Your task to perform on an android device: Search for bose soundlink on costco, select the first entry, add it to the cart, then select checkout. Image 0: 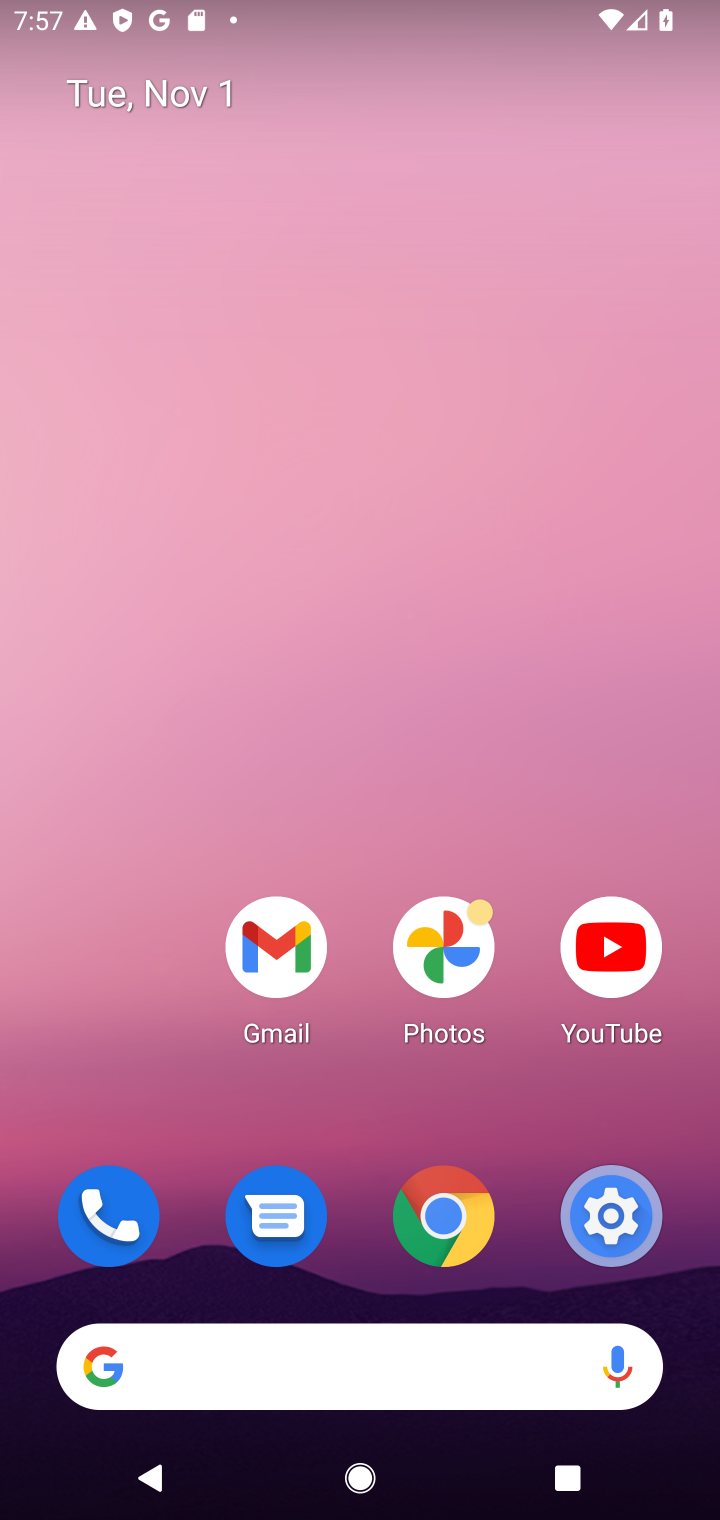
Step 0: click (492, 1236)
Your task to perform on an android device: Search for bose soundlink on costco, select the first entry, add it to the cart, then select checkout. Image 1: 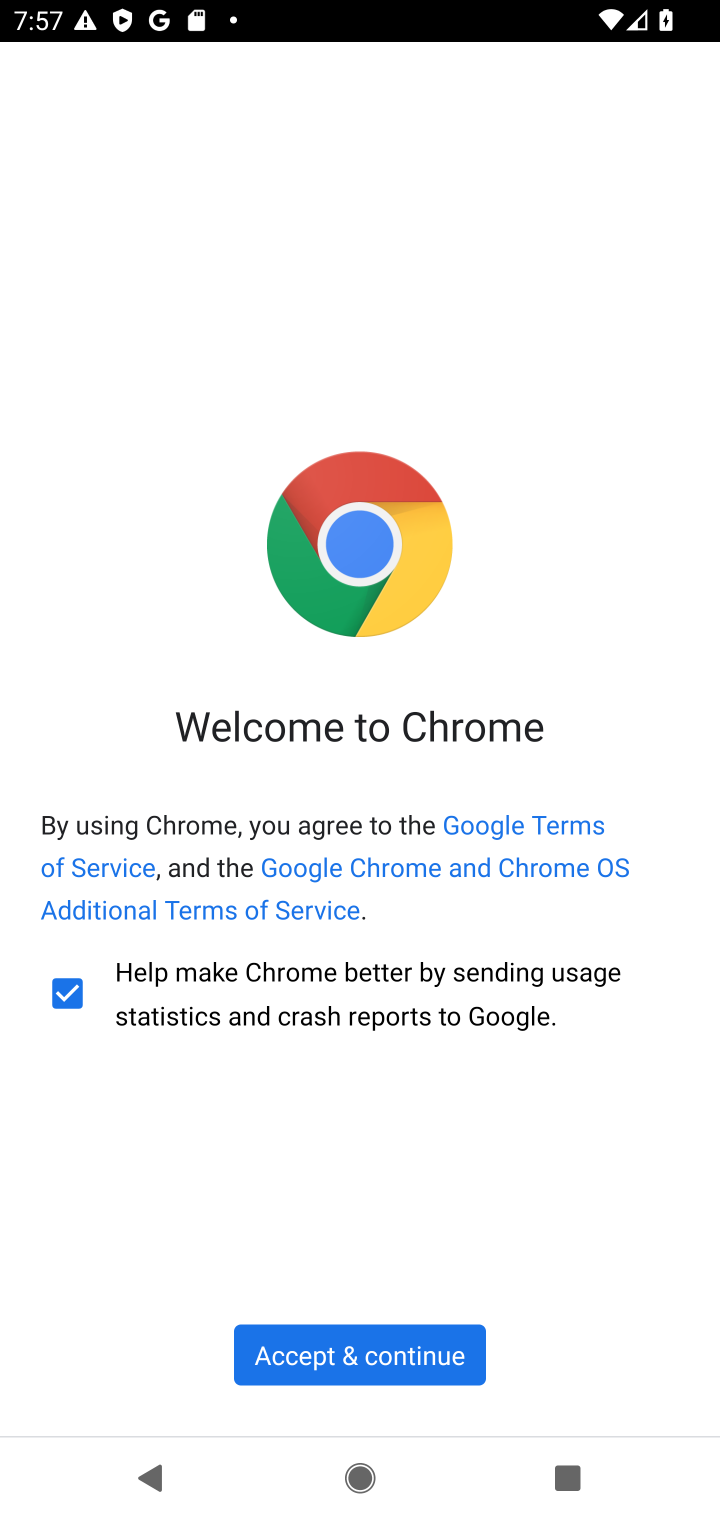
Step 1: click (382, 1347)
Your task to perform on an android device: Search for bose soundlink on costco, select the first entry, add it to the cart, then select checkout. Image 2: 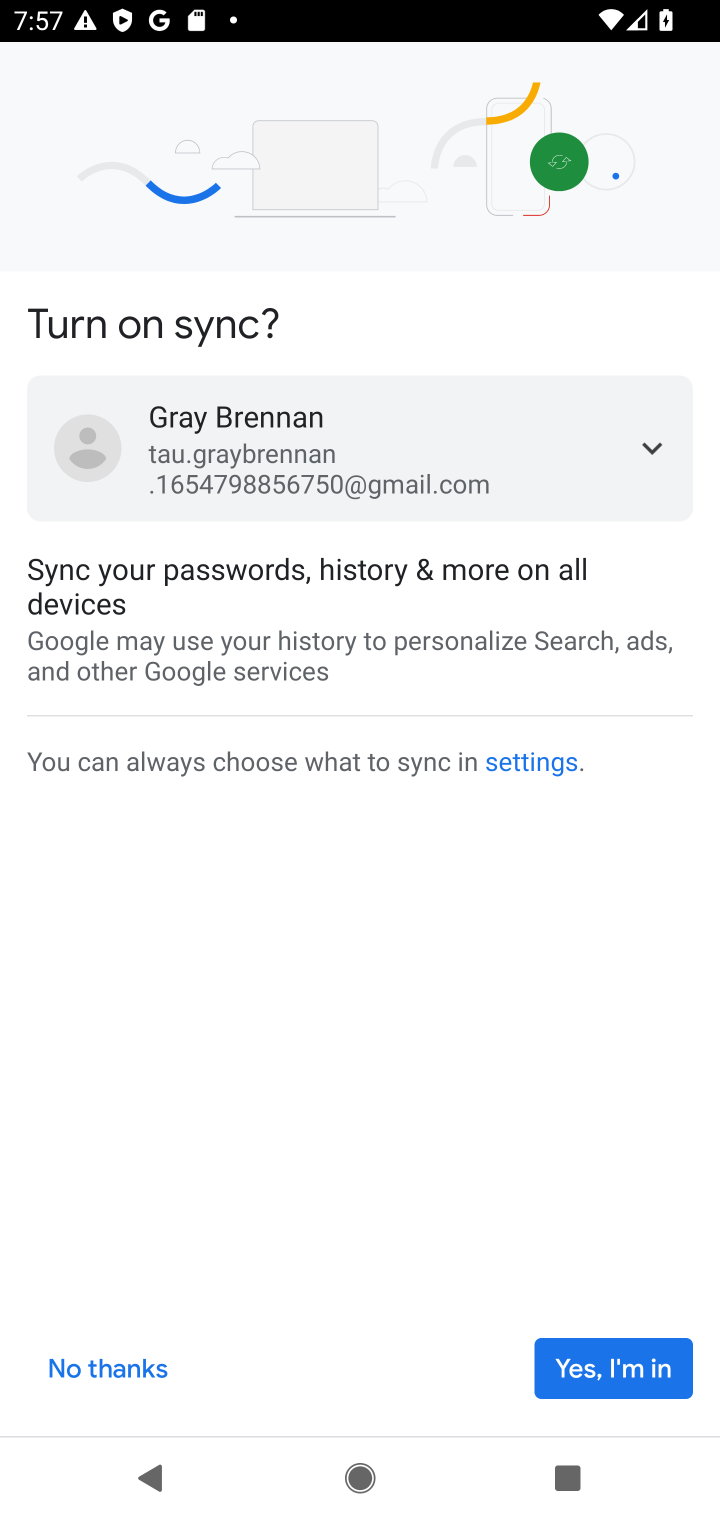
Step 2: click (578, 1375)
Your task to perform on an android device: Search for bose soundlink on costco, select the first entry, add it to the cart, then select checkout. Image 3: 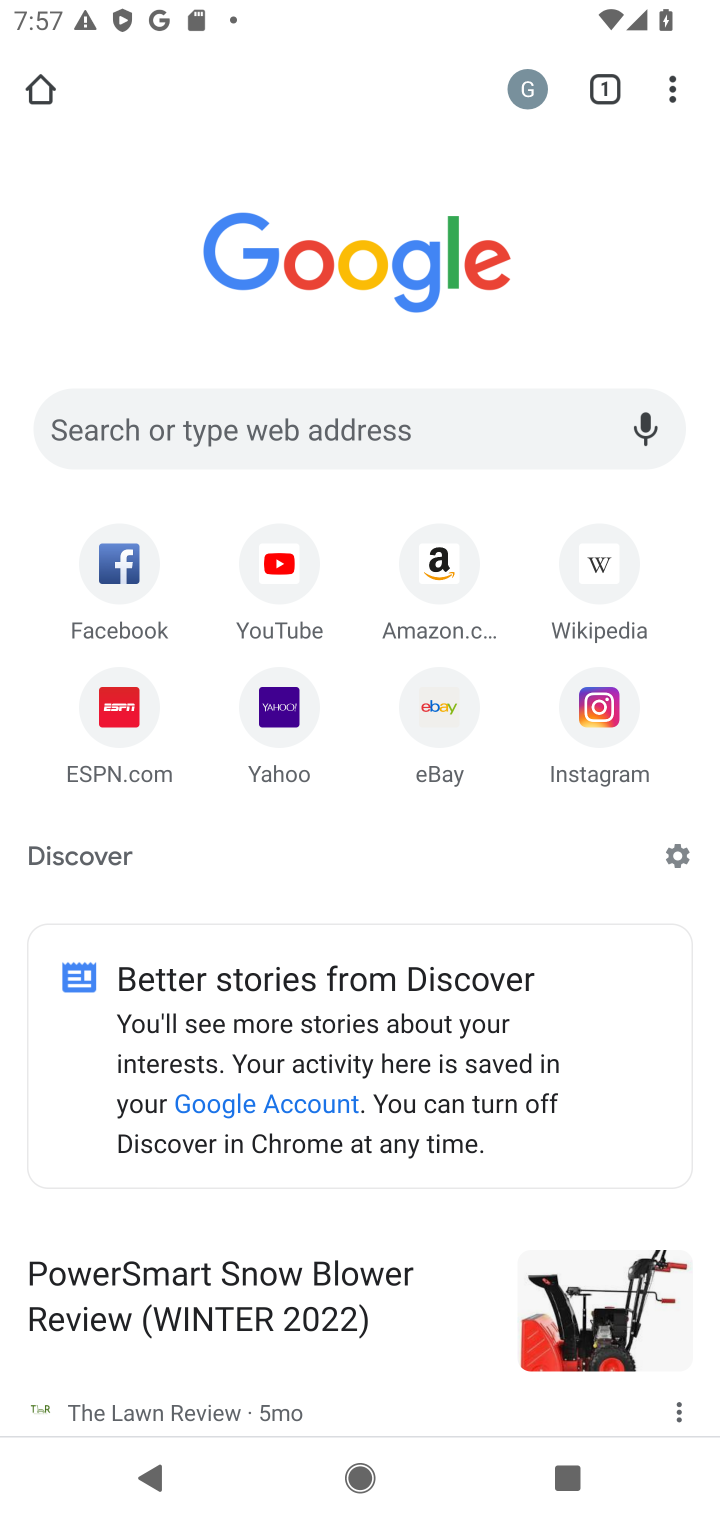
Step 3: click (463, 417)
Your task to perform on an android device: Search for bose soundlink on costco, select the first entry, add it to the cart, then select checkout. Image 4: 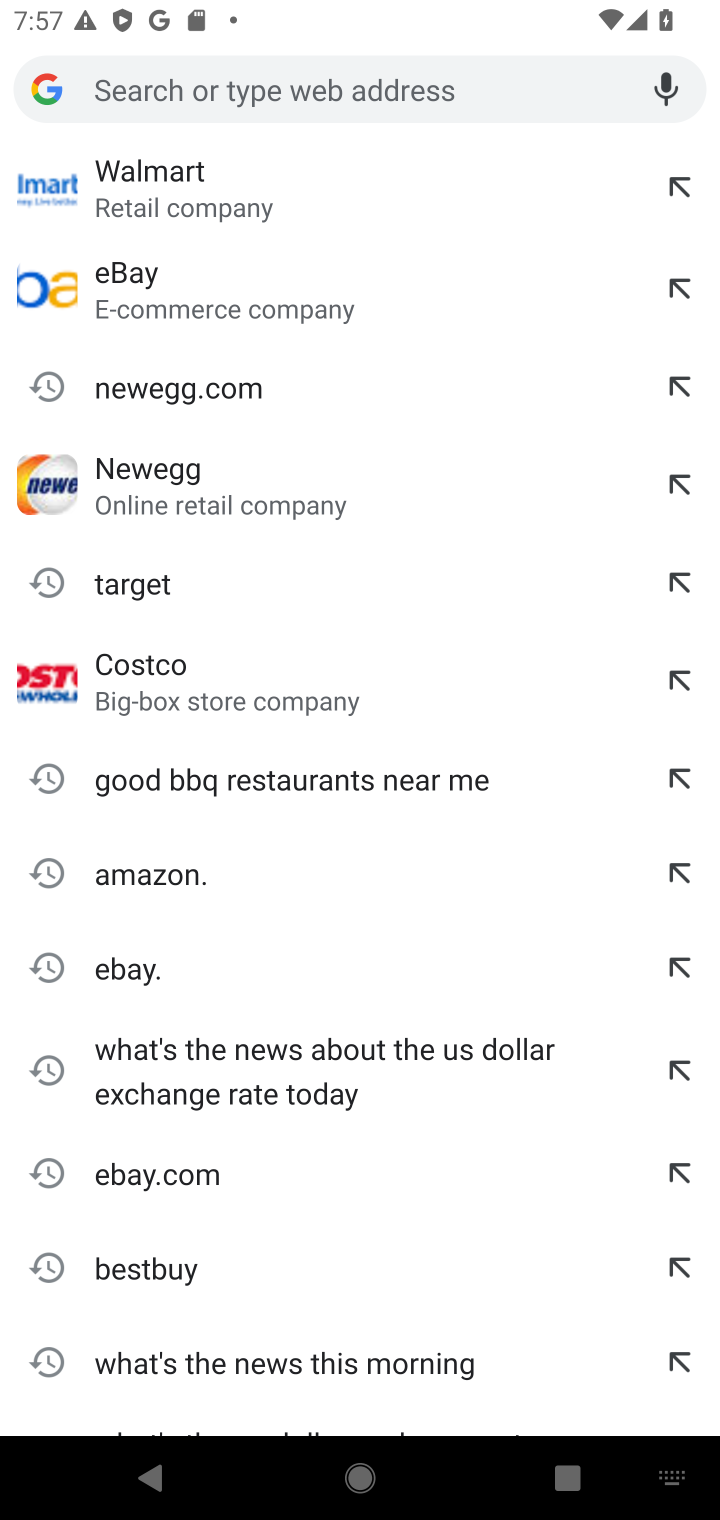
Step 4: type "costco"
Your task to perform on an android device: Search for bose soundlink on costco, select the first entry, add it to the cart, then select checkout. Image 5: 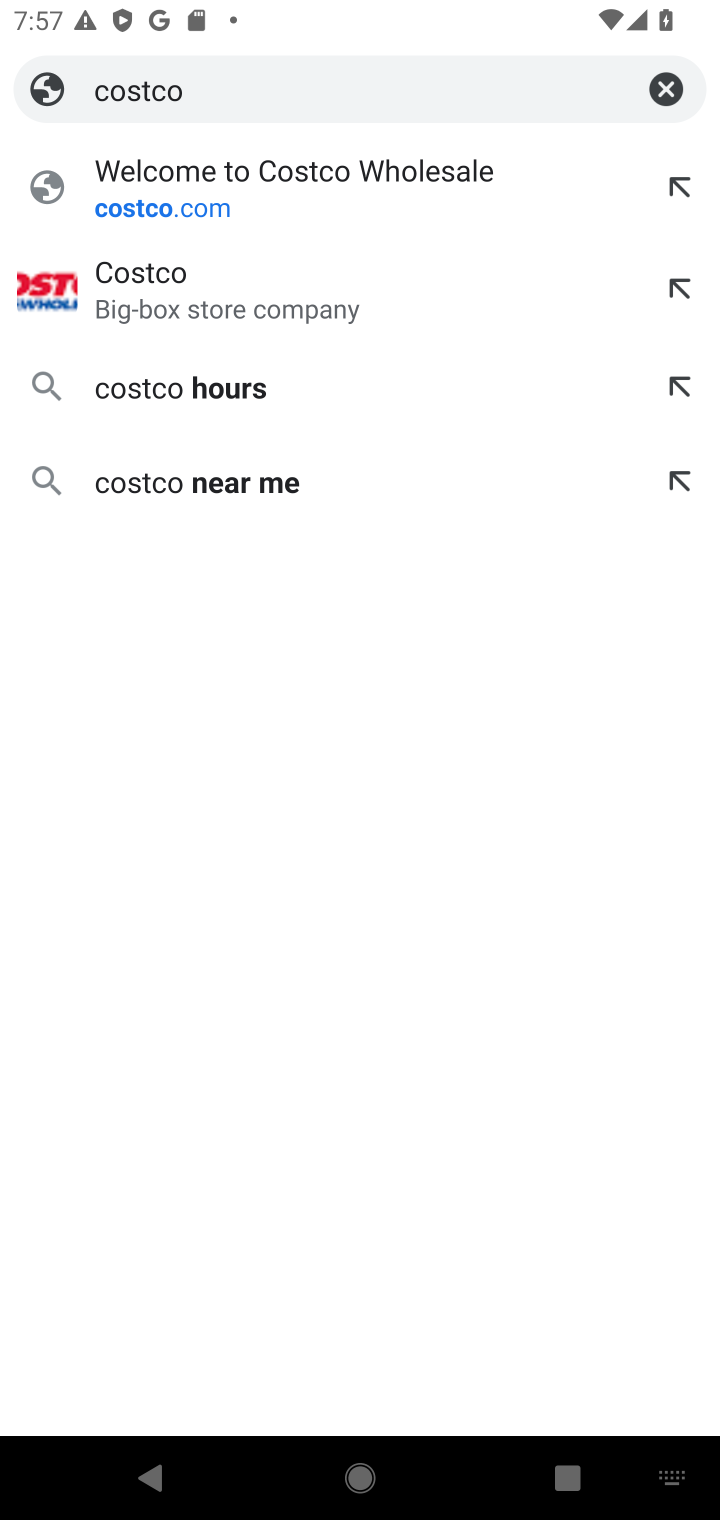
Step 5: click (106, 194)
Your task to perform on an android device: Search for bose soundlink on costco, select the first entry, add it to the cart, then select checkout. Image 6: 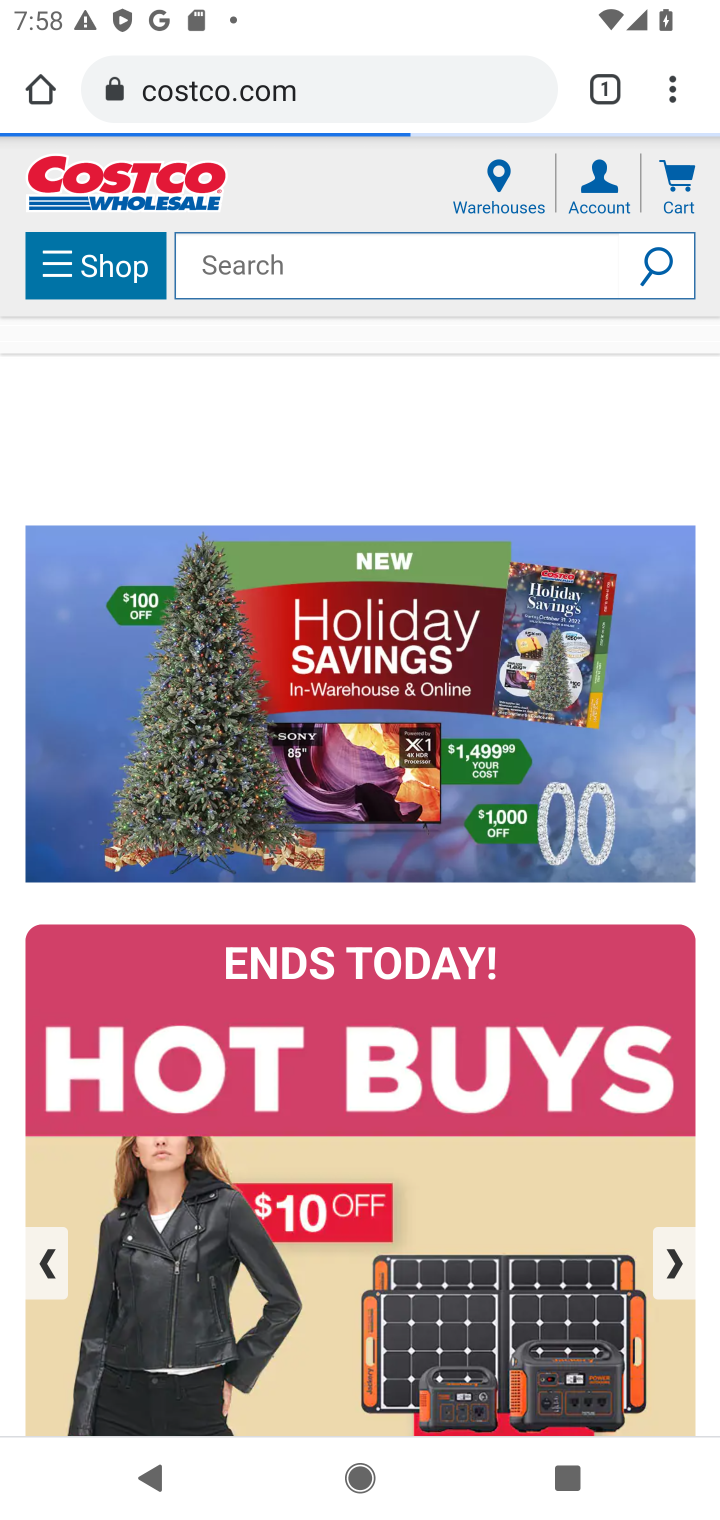
Step 6: click (287, 269)
Your task to perform on an android device: Search for bose soundlink on costco, select the first entry, add it to the cart, then select checkout. Image 7: 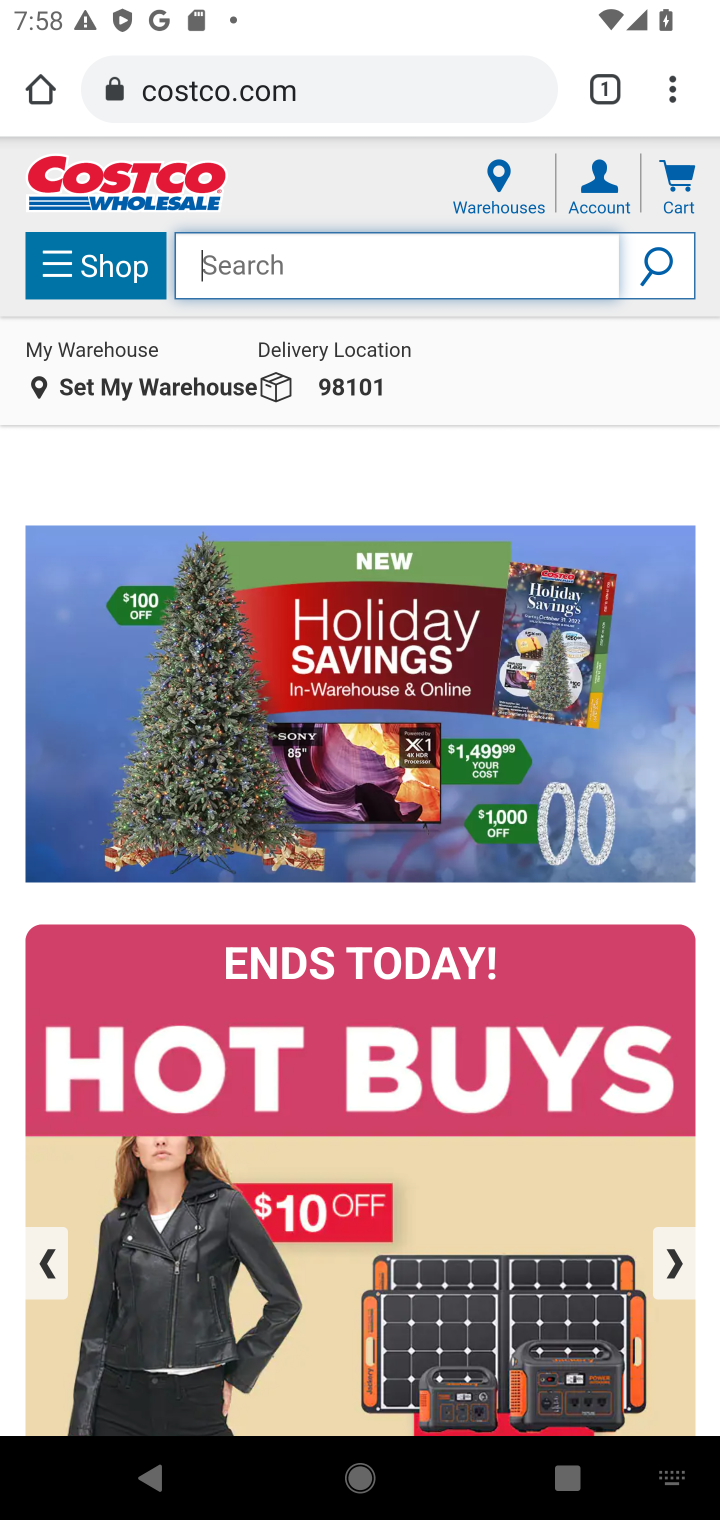
Step 7: type "bose soundlink"
Your task to perform on an android device: Search for bose soundlink on costco, select the first entry, add it to the cart, then select checkout. Image 8: 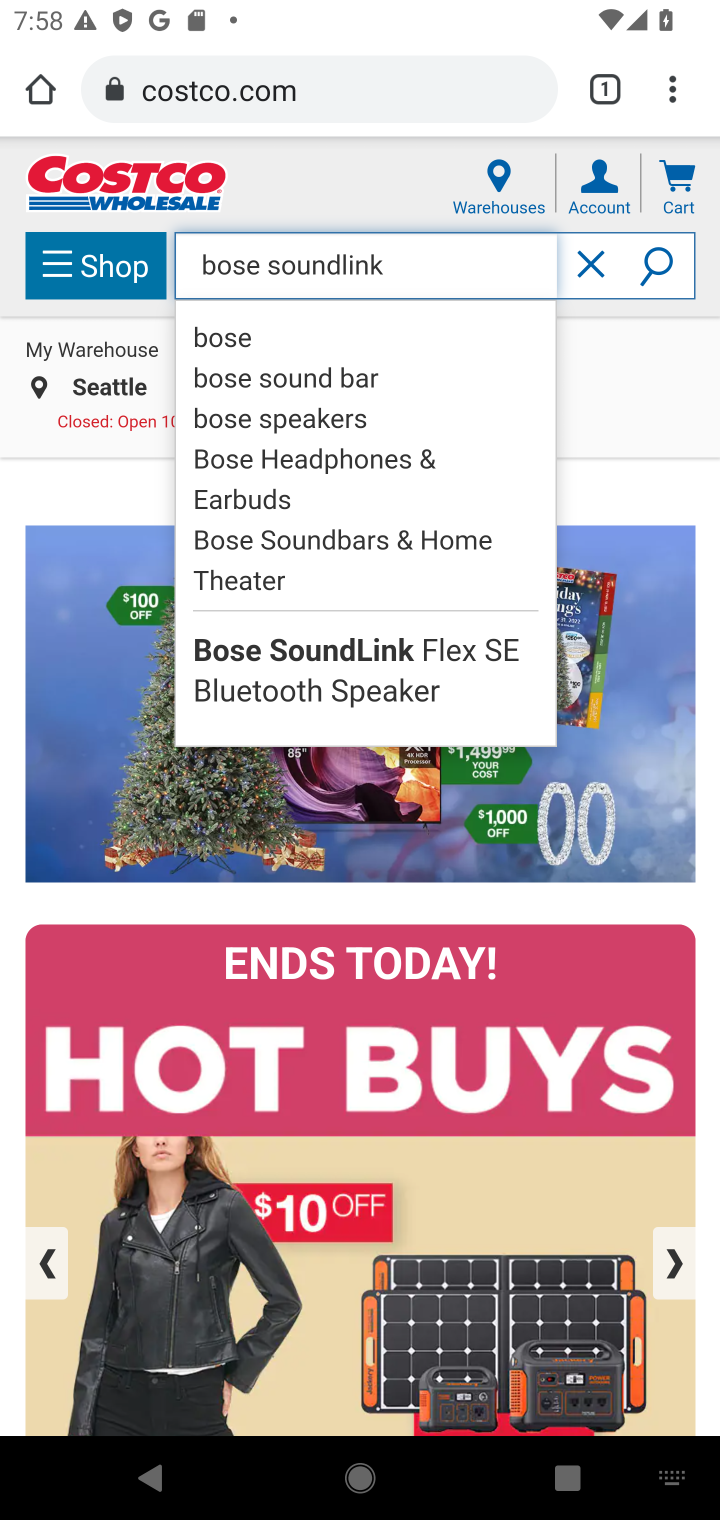
Step 8: click (656, 264)
Your task to perform on an android device: Search for bose soundlink on costco, select the first entry, add it to the cart, then select checkout. Image 9: 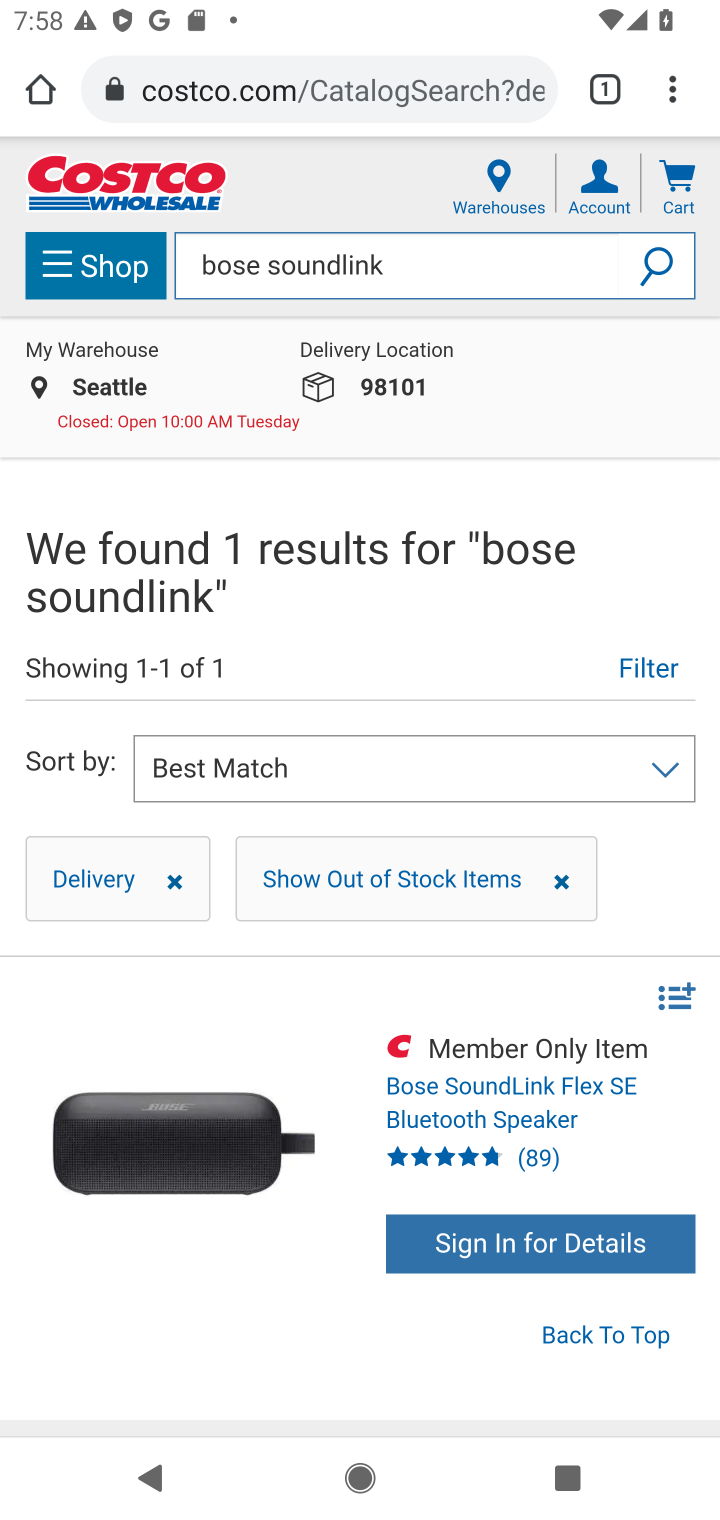
Step 9: click (510, 1103)
Your task to perform on an android device: Search for bose soundlink on costco, select the first entry, add it to the cart, then select checkout. Image 10: 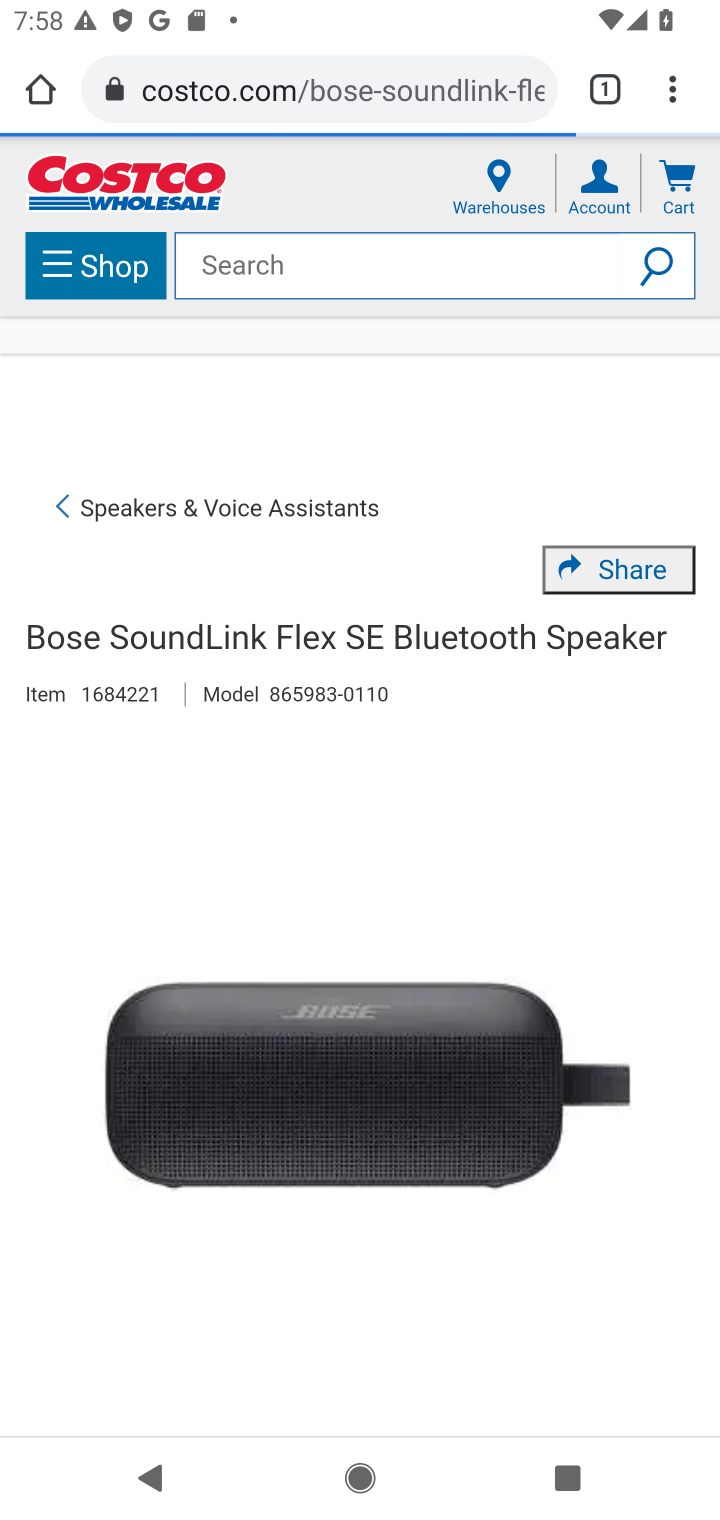
Step 10: drag from (316, 1157) to (325, 563)
Your task to perform on an android device: Search for bose soundlink on costco, select the first entry, add it to the cart, then select checkout. Image 11: 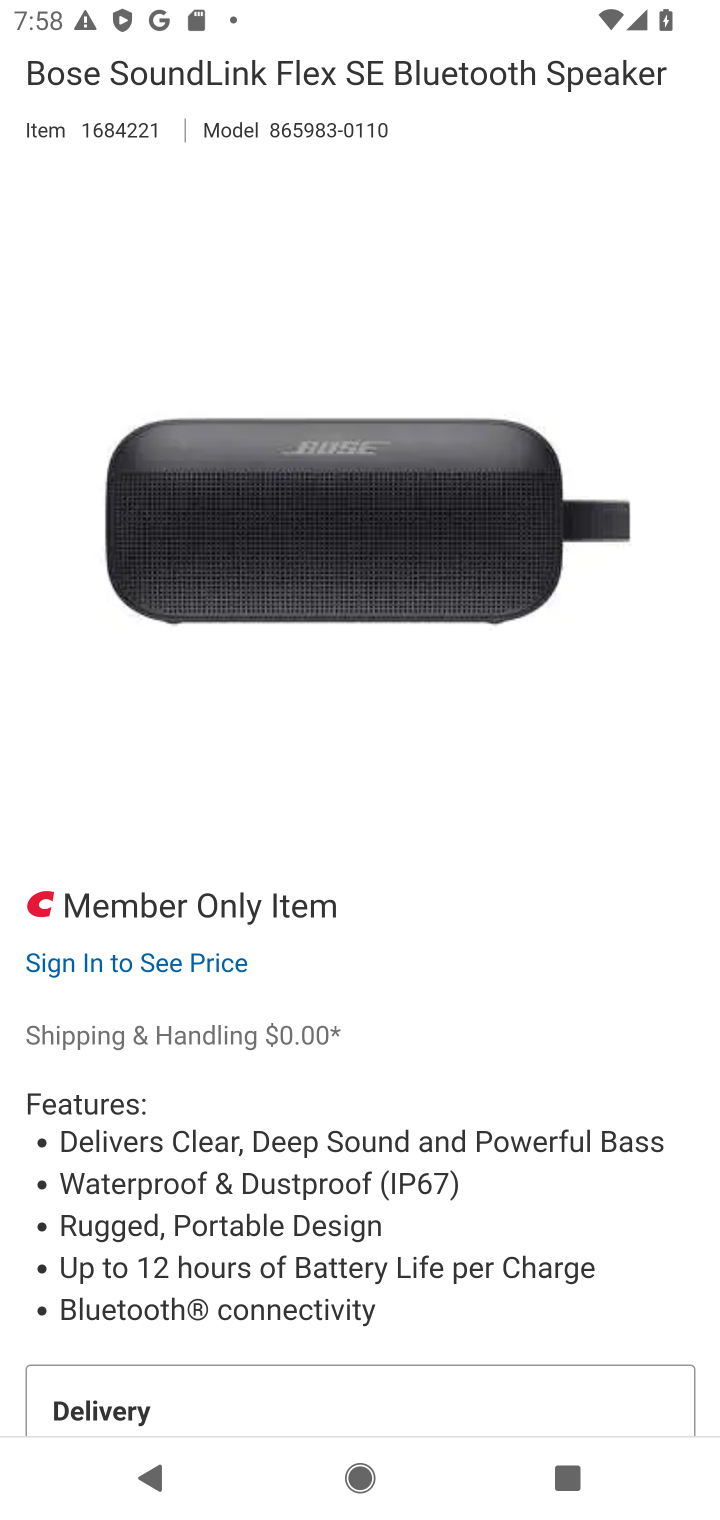
Step 11: drag from (338, 1184) to (366, 587)
Your task to perform on an android device: Search for bose soundlink on costco, select the first entry, add it to the cart, then select checkout. Image 12: 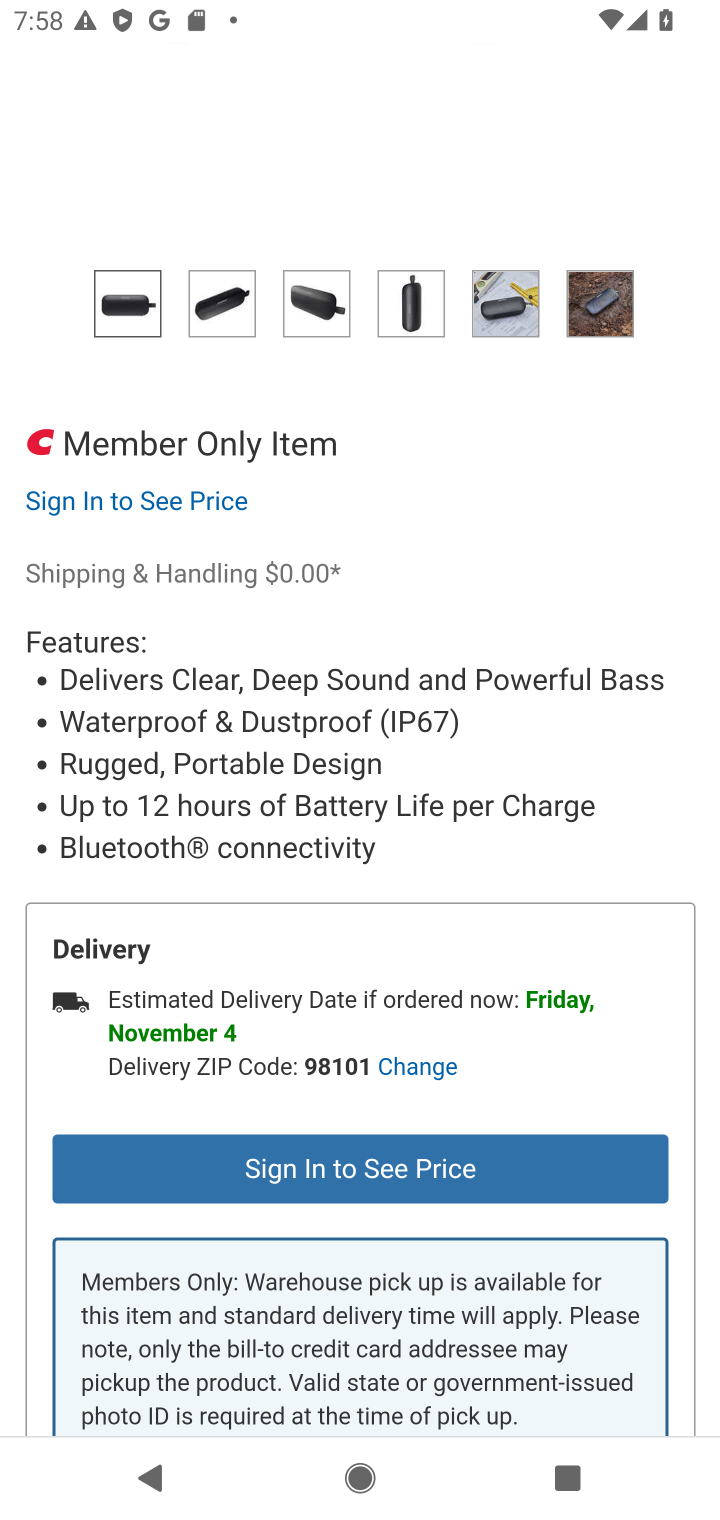
Step 12: drag from (454, 1163) to (450, 476)
Your task to perform on an android device: Search for bose soundlink on costco, select the first entry, add it to the cart, then select checkout. Image 13: 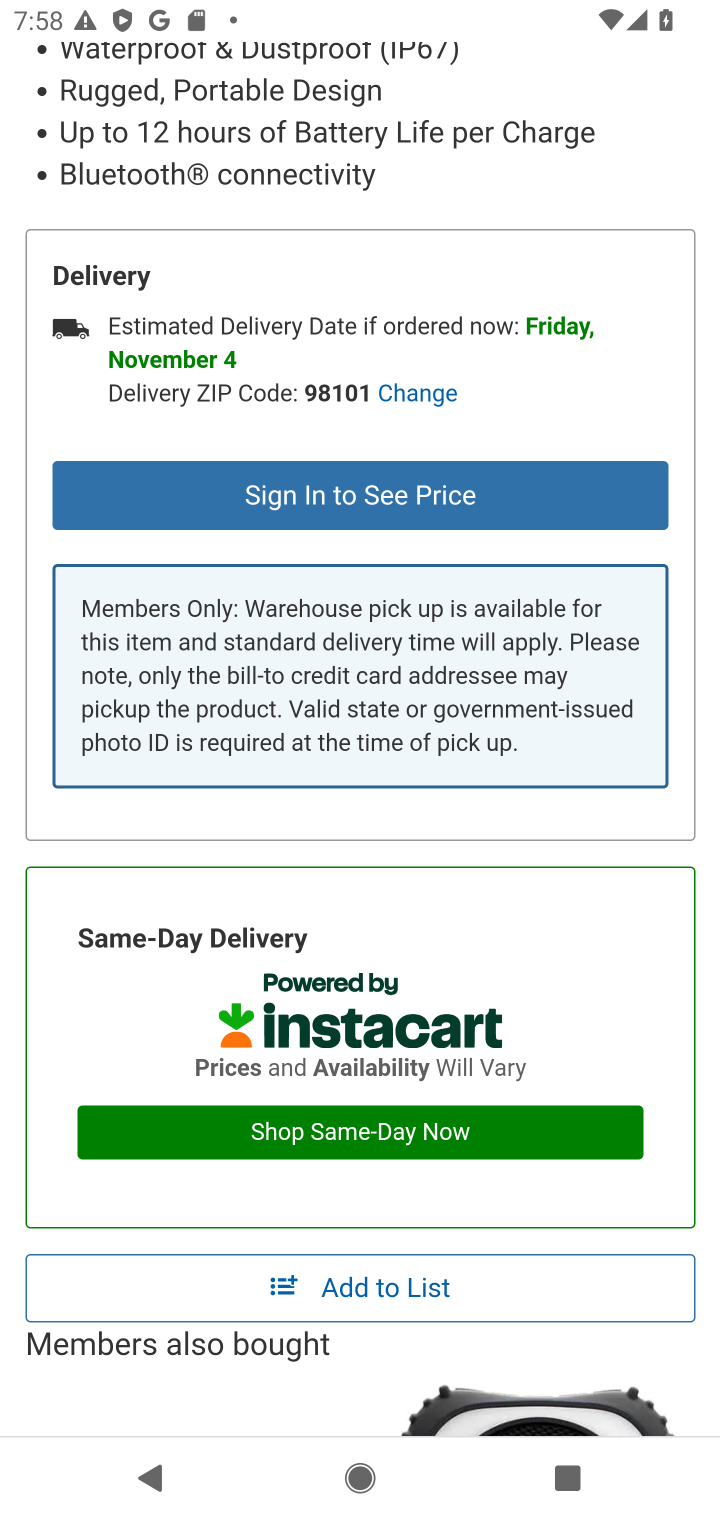
Step 13: drag from (373, 736) to (402, 537)
Your task to perform on an android device: Search for bose soundlink on costco, select the first entry, add it to the cart, then select checkout. Image 14: 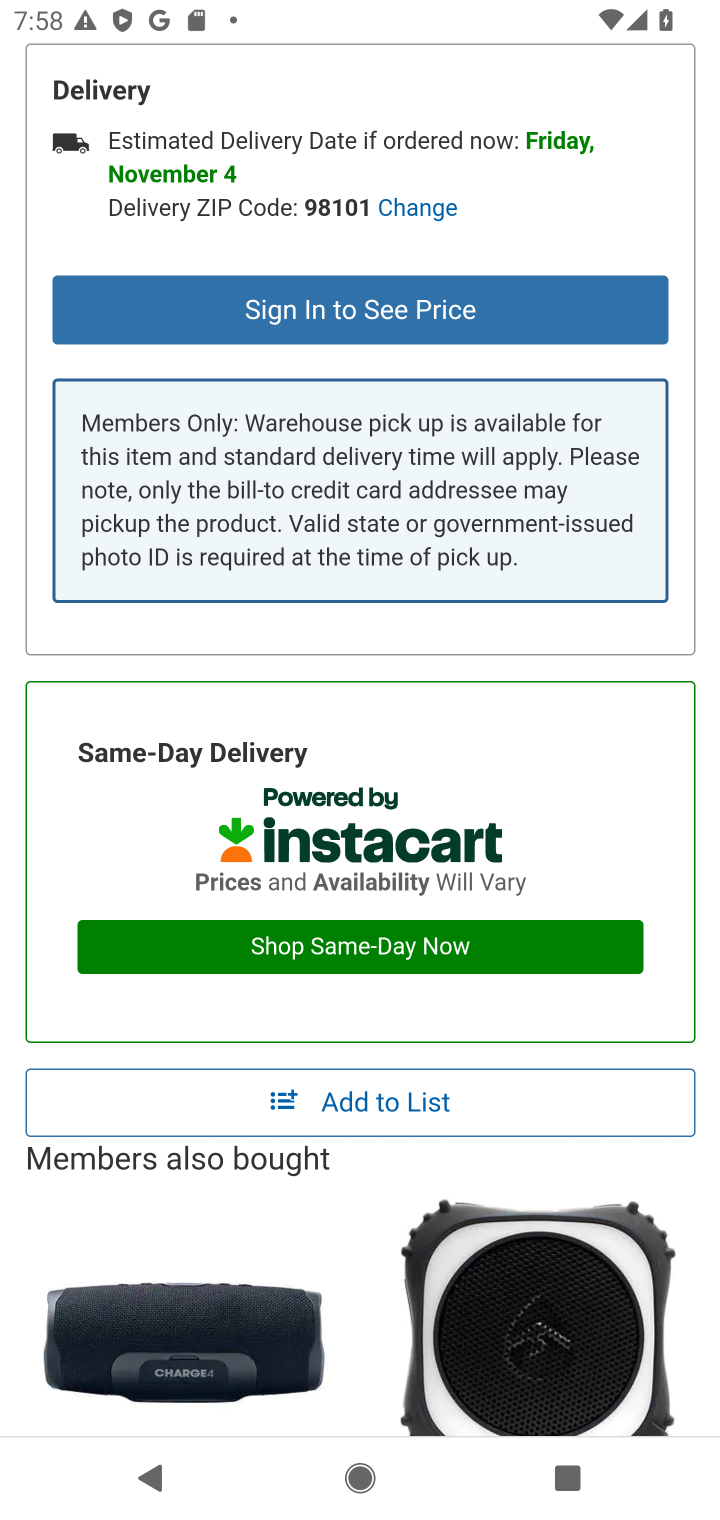
Step 14: drag from (428, 1205) to (472, 692)
Your task to perform on an android device: Search for bose soundlink on costco, select the first entry, add it to the cart, then select checkout. Image 15: 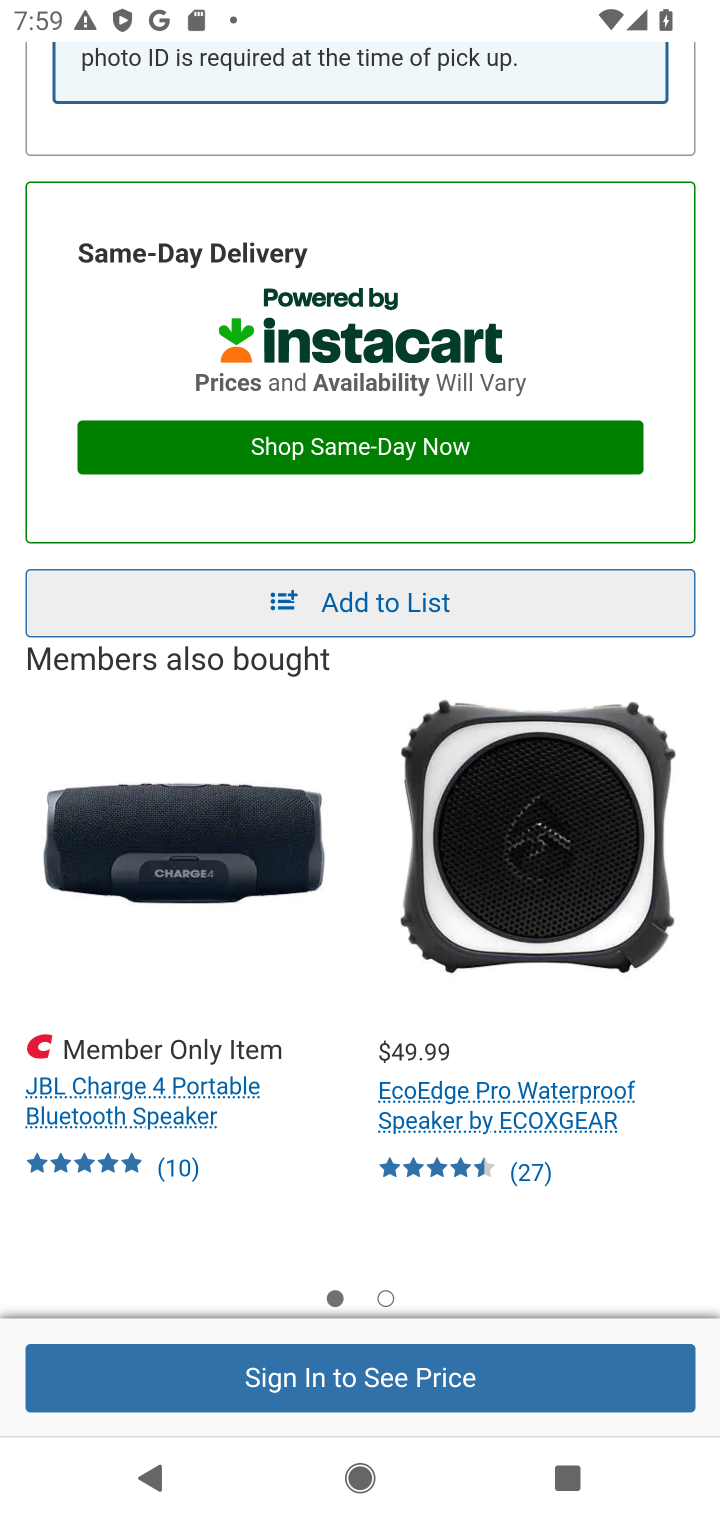
Step 15: drag from (419, 713) to (465, 1253)
Your task to perform on an android device: Search for bose soundlink on costco, select the first entry, add it to the cart, then select checkout. Image 16: 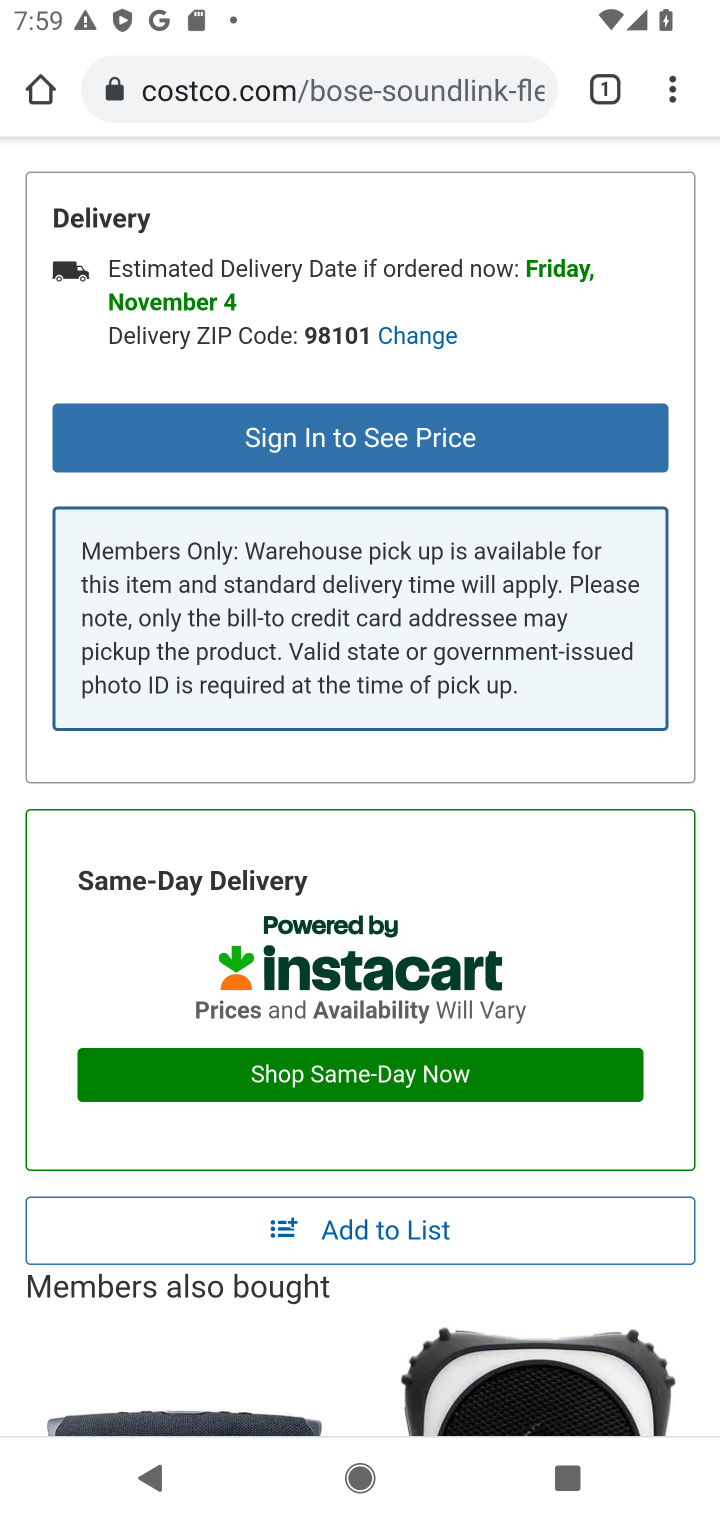
Step 16: click (565, 955)
Your task to perform on an android device: Search for bose soundlink on costco, select the first entry, add it to the cart, then select checkout. Image 17: 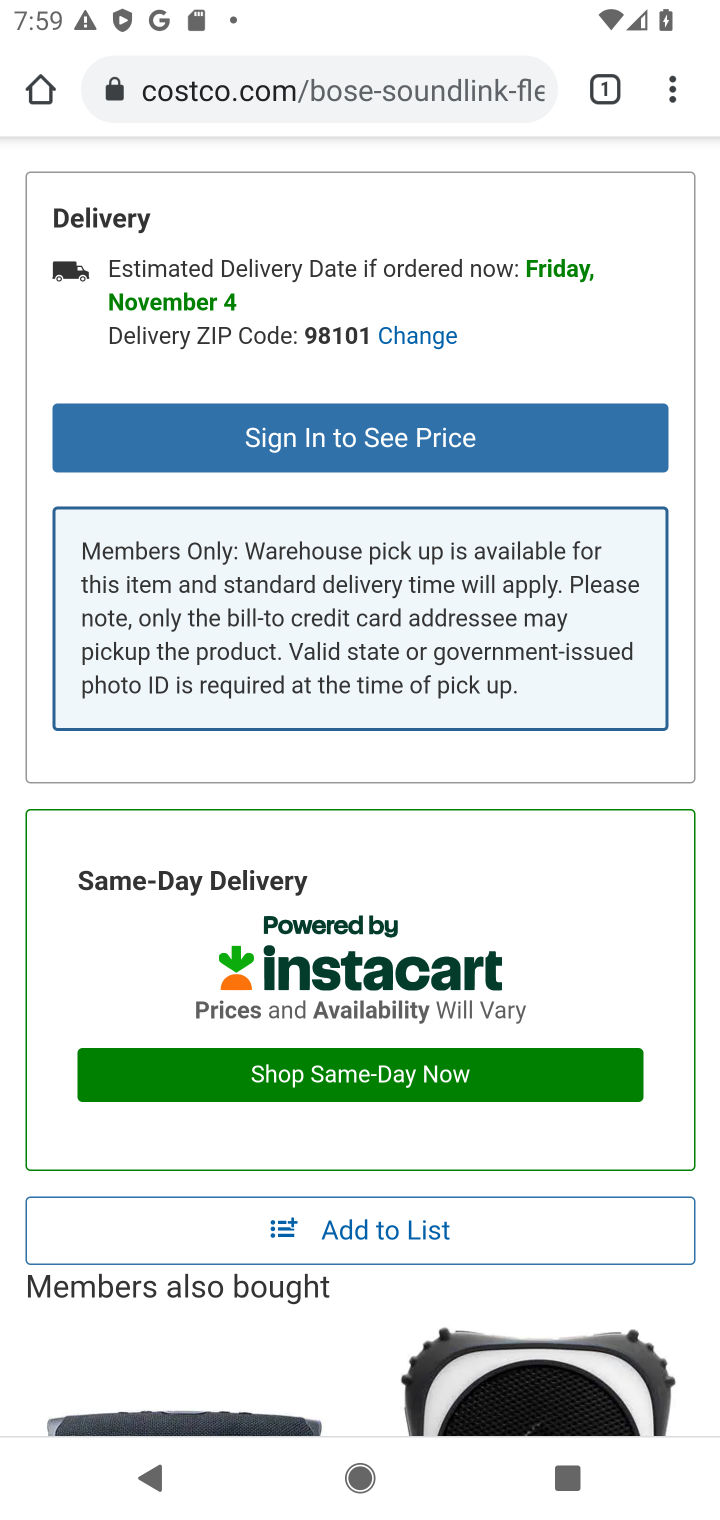
Step 17: task complete